Your task to perform on an android device: Open the calendar and show me this week's events? Image 0: 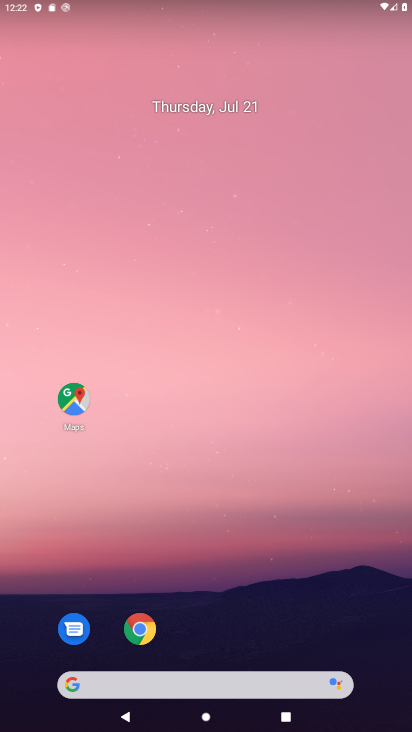
Step 0: drag from (310, 543) to (228, 4)
Your task to perform on an android device: Open the calendar and show me this week's events? Image 1: 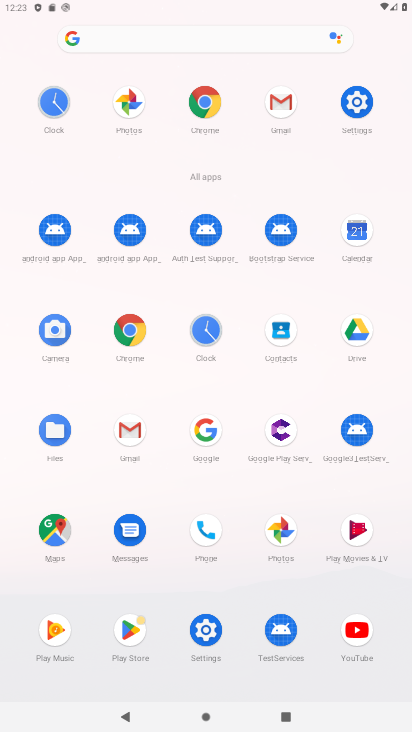
Step 1: click (350, 236)
Your task to perform on an android device: Open the calendar and show me this week's events? Image 2: 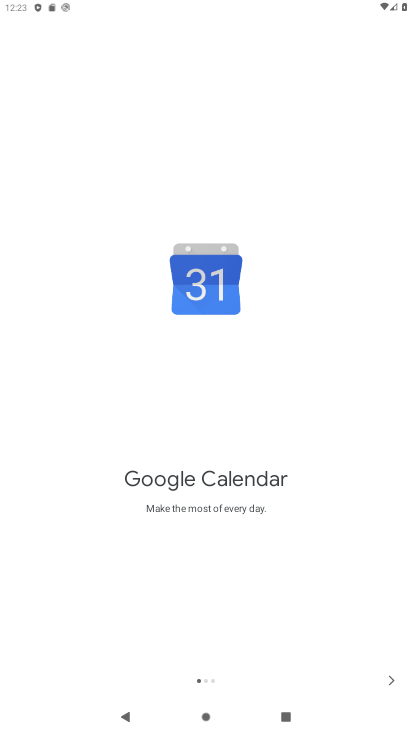
Step 2: click (393, 673)
Your task to perform on an android device: Open the calendar and show me this week's events? Image 3: 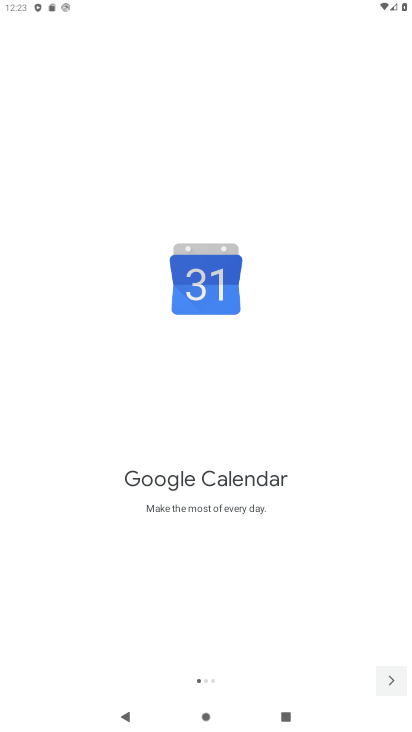
Step 3: click (391, 672)
Your task to perform on an android device: Open the calendar and show me this week's events? Image 4: 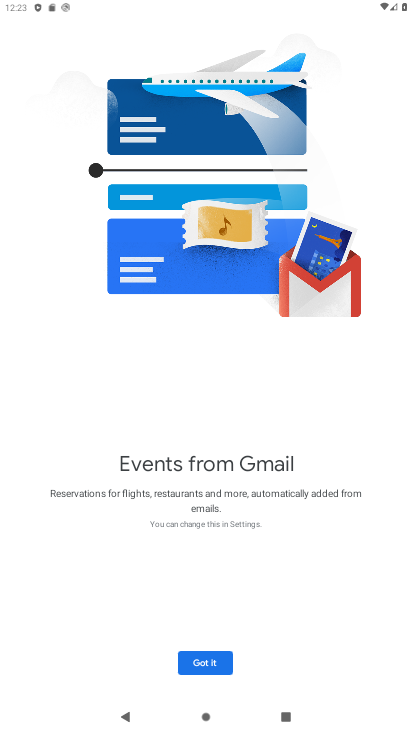
Step 4: click (202, 665)
Your task to perform on an android device: Open the calendar and show me this week's events? Image 5: 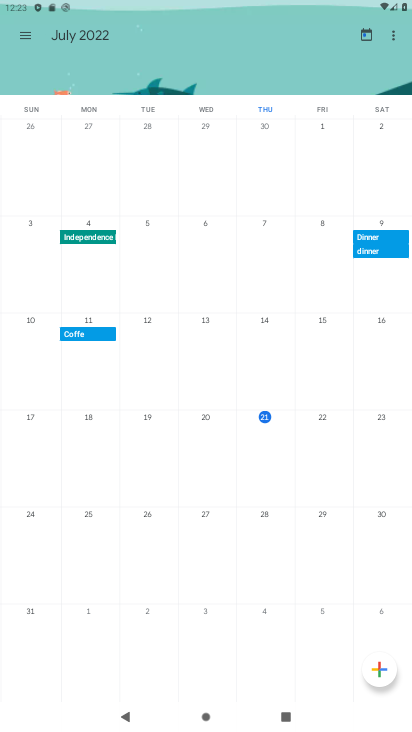
Step 5: click (23, 33)
Your task to perform on an android device: Open the calendar and show me this week's events? Image 6: 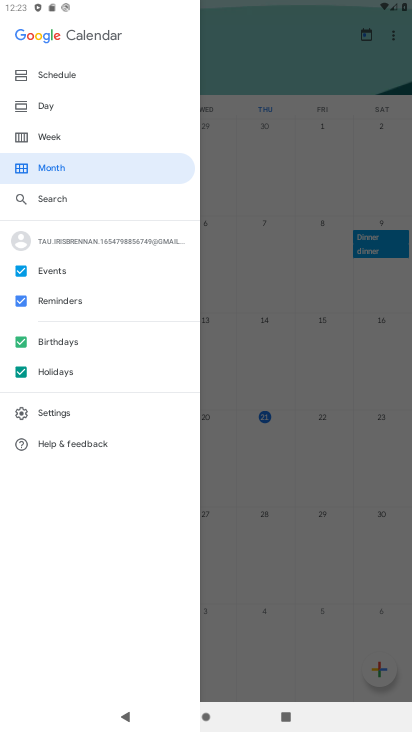
Step 6: click (56, 136)
Your task to perform on an android device: Open the calendar and show me this week's events? Image 7: 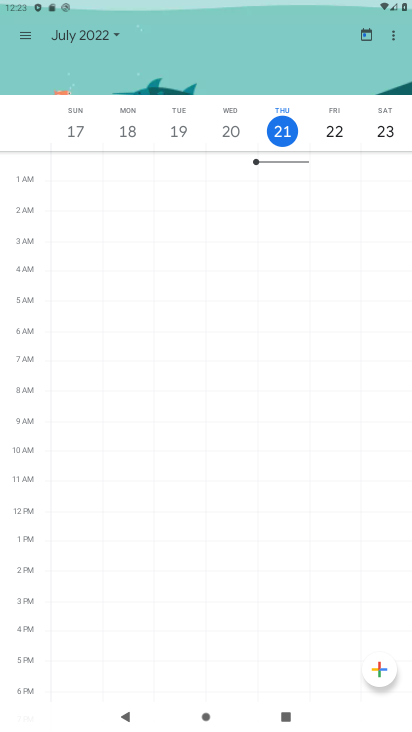
Step 7: task complete